Your task to perform on an android device: Show me recent news Image 0: 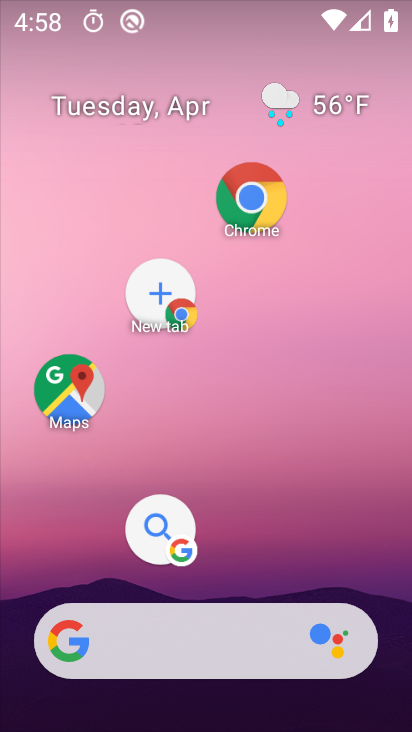
Step 0: drag from (155, 603) to (308, 243)
Your task to perform on an android device: Show me recent news Image 1: 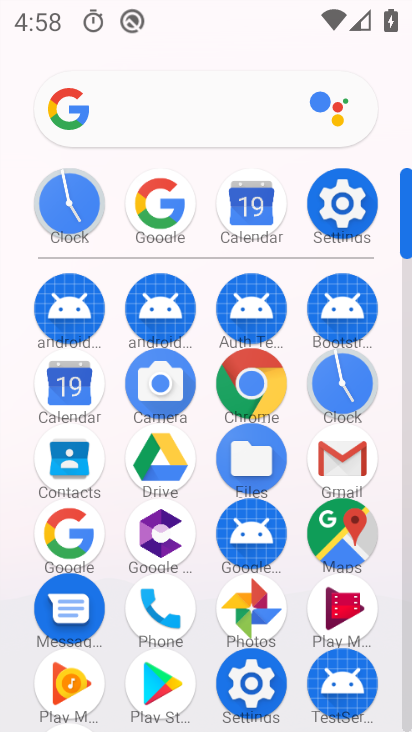
Step 1: click (60, 541)
Your task to perform on an android device: Show me recent news Image 2: 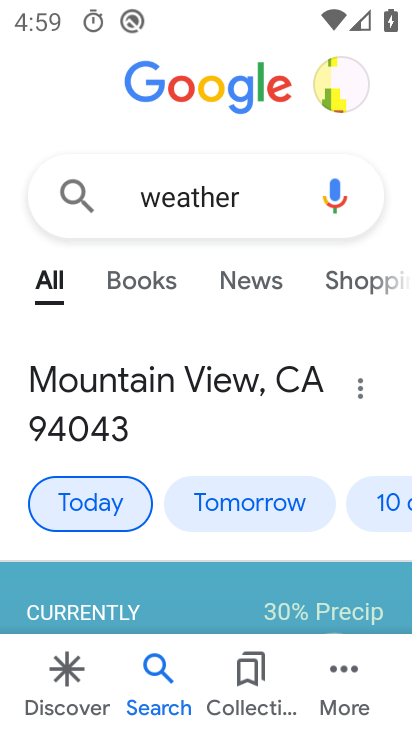
Step 2: click (234, 284)
Your task to perform on an android device: Show me recent news Image 3: 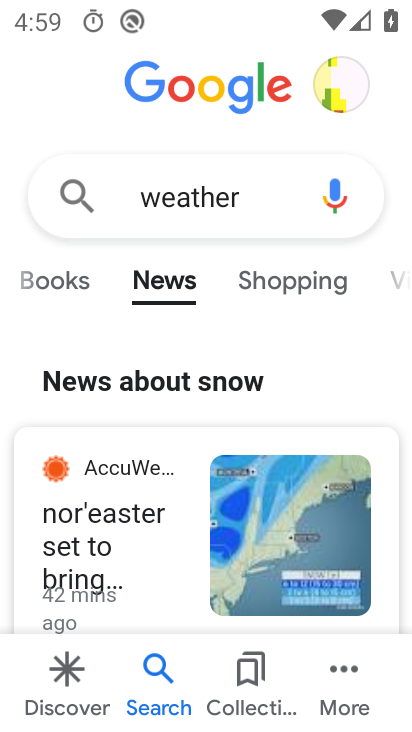
Step 3: task complete